Your task to perform on an android device: turn on priority inbox in the gmail app Image 0: 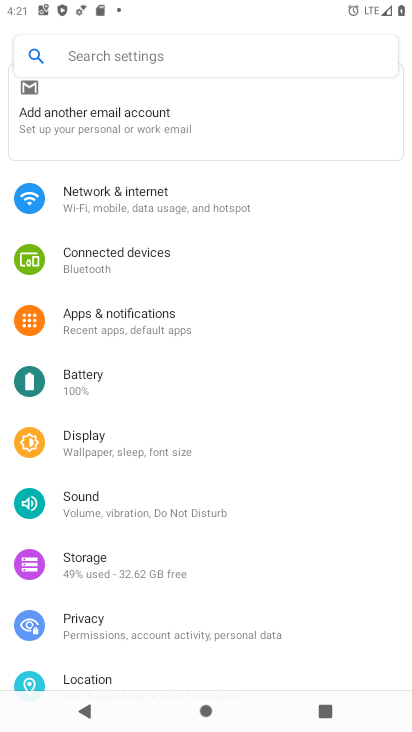
Step 0: press home button
Your task to perform on an android device: turn on priority inbox in the gmail app Image 1: 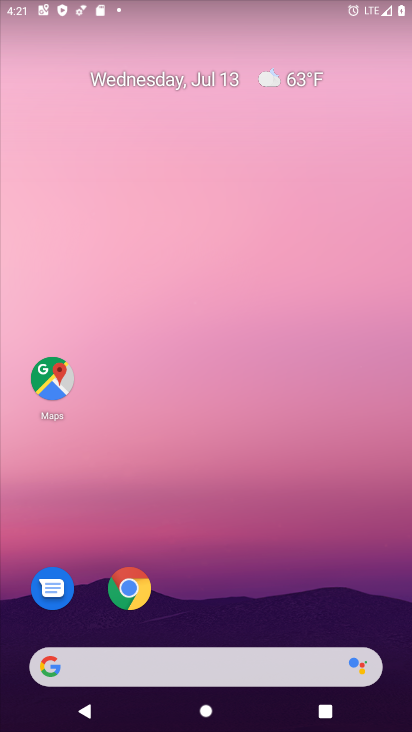
Step 1: drag from (219, 673) to (270, 54)
Your task to perform on an android device: turn on priority inbox in the gmail app Image 2: 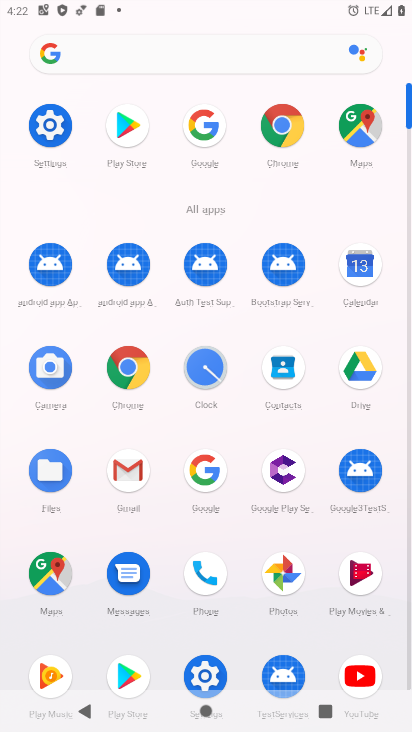
Step 2: click (128, 469)
Your task to perform on an android device: turn on priority inbox in the gmail app Image 3: 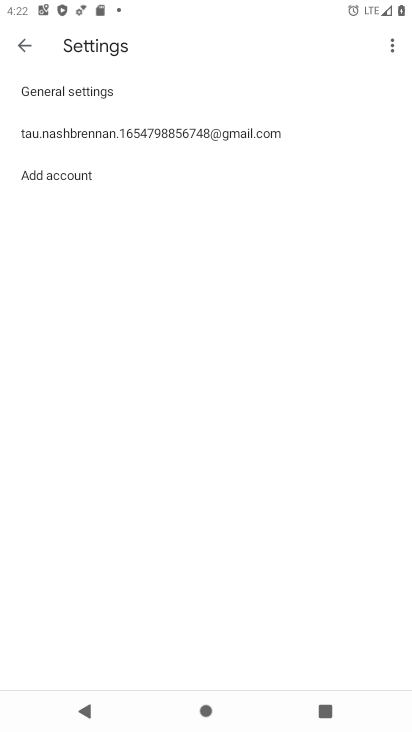
Step 3: click (176, 130)
Your task to perform on an android device: turn on priority inbox in the gmail app Image 4: 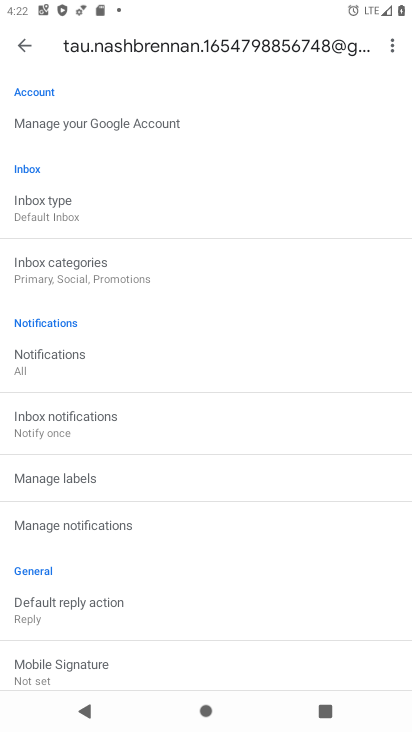
Step 4: click (59, 212)
Your task to perform on an android device: turn on priority inbox in the gmail app Image 5: 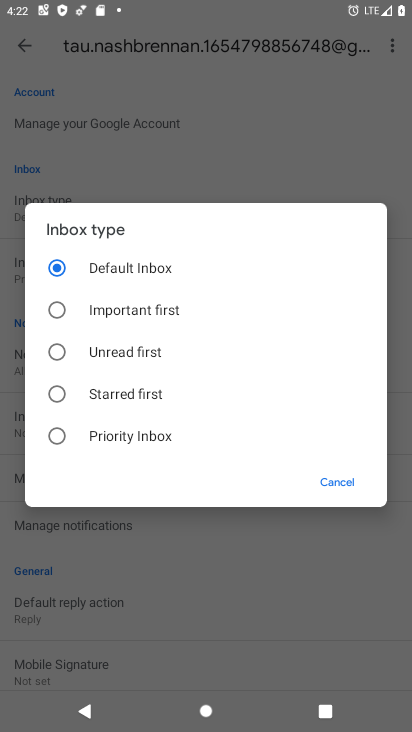
Step 5: click (60, 441)
Your task to perform on an android device: turn on priority inbox in the gmail app Image 6: 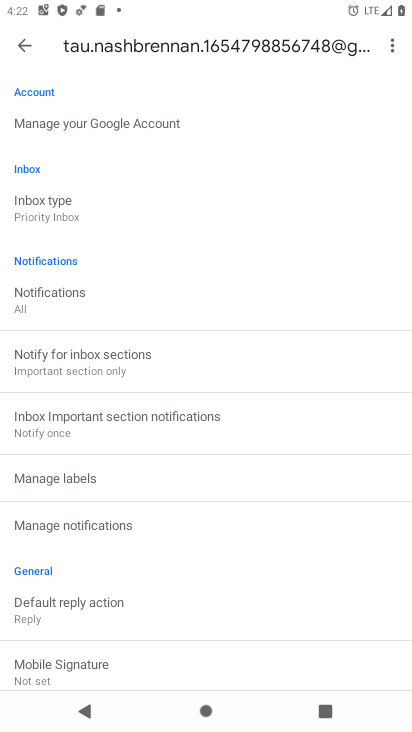
Step 6: task complete